Your task to perform on an android device: Add "lg ultragear" to the cart on newegg Image 0: 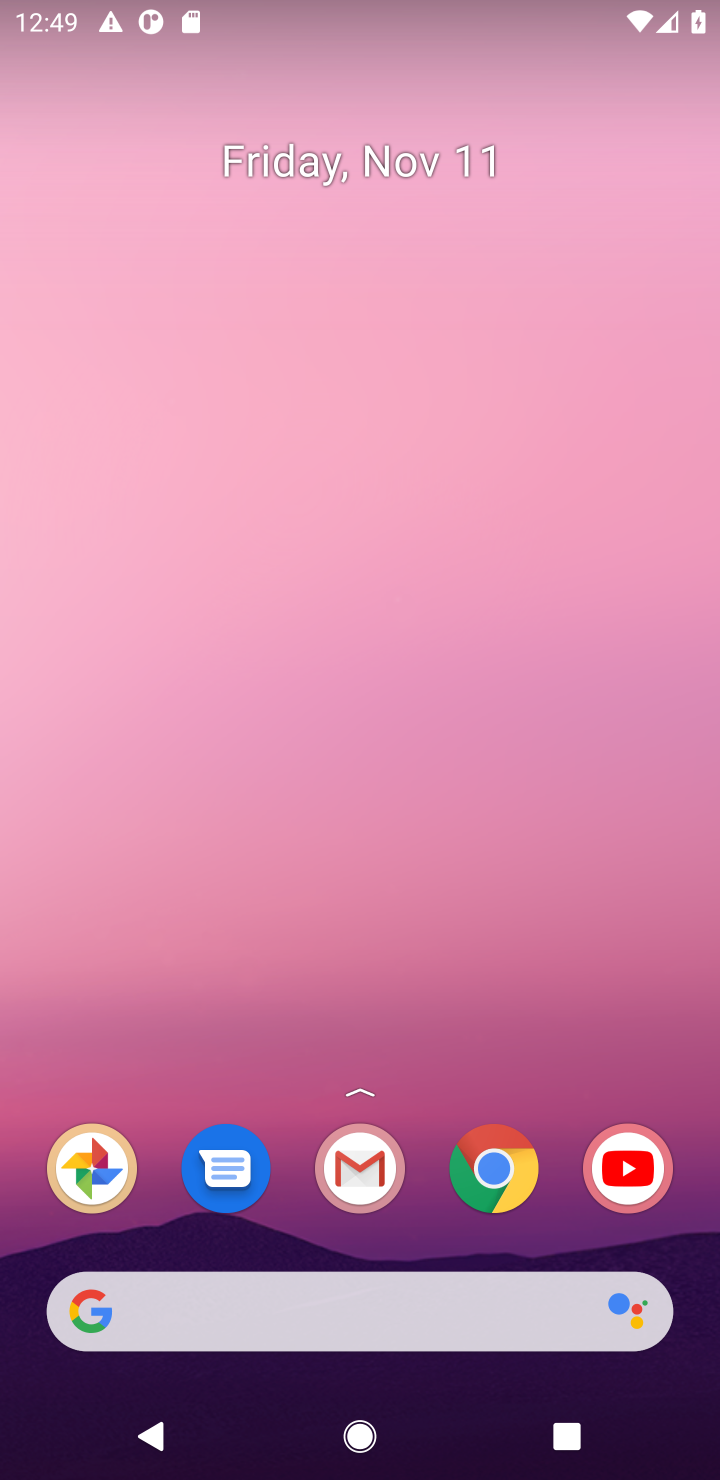
Step 0: click (500, 1166)
Your task to perform on an android device: Add "lg ultragear" to the cart on newegg Image 1: 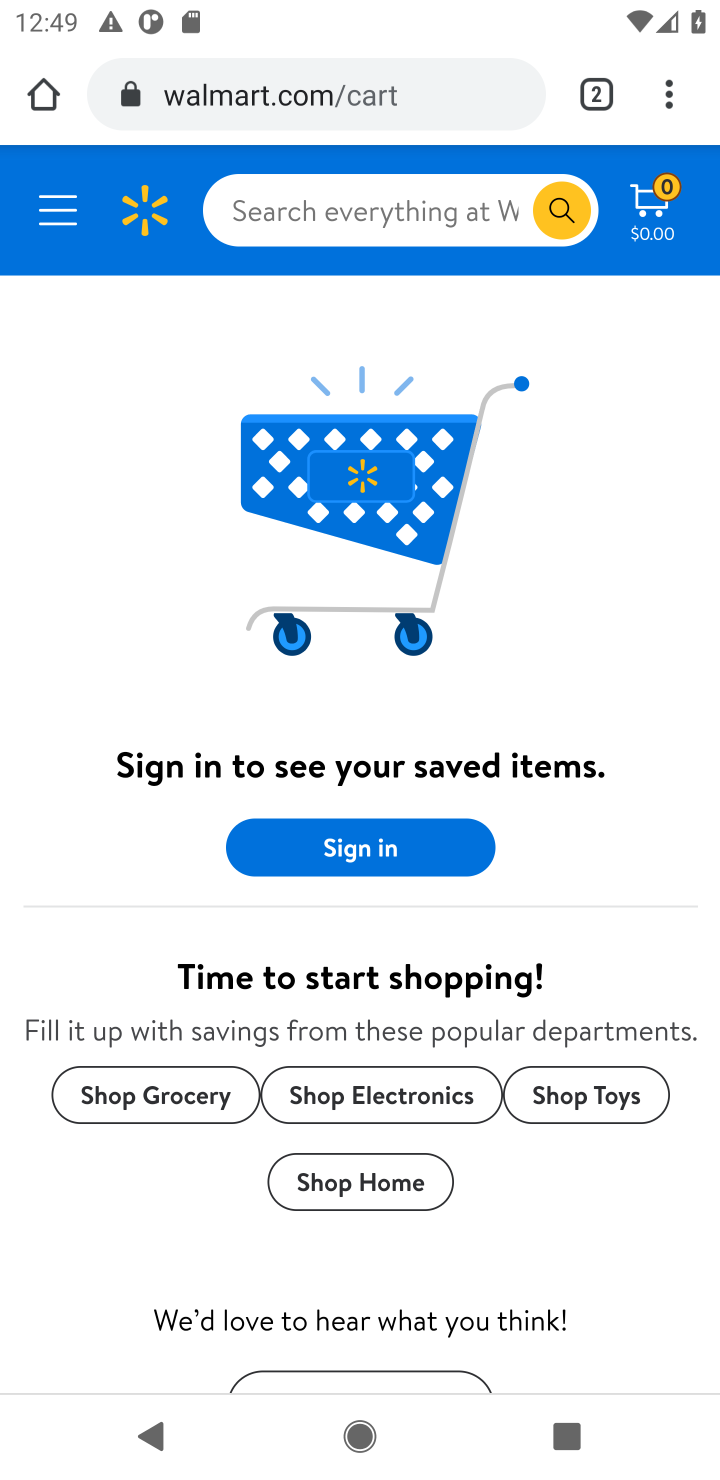
Step 1: click (308, 100)
Your task to perform on an android device: Add "lg ultragear" to the cart on newegg Image 2: 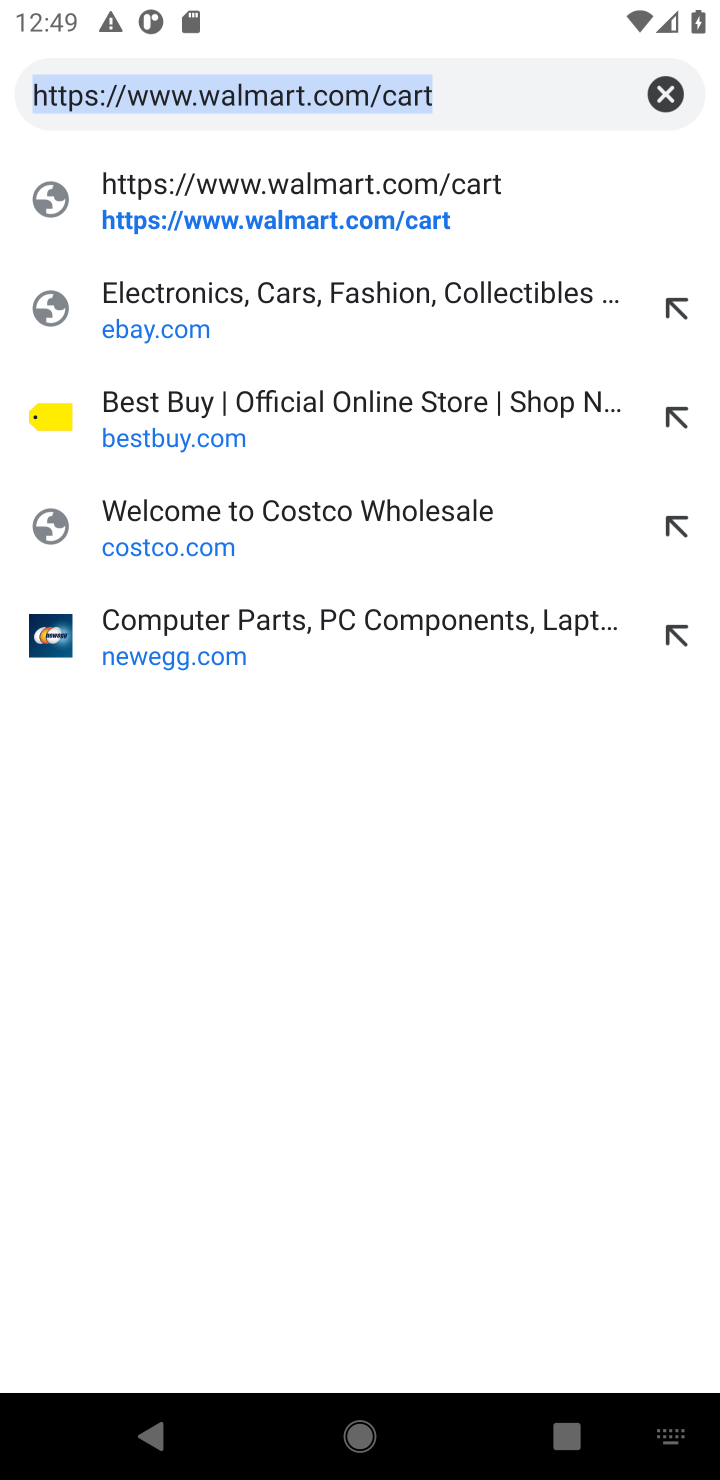
Step 2: click (166, 647)
Your task to perform on an android device: Add "lg ultragear" to the cart on newegg Image 3: 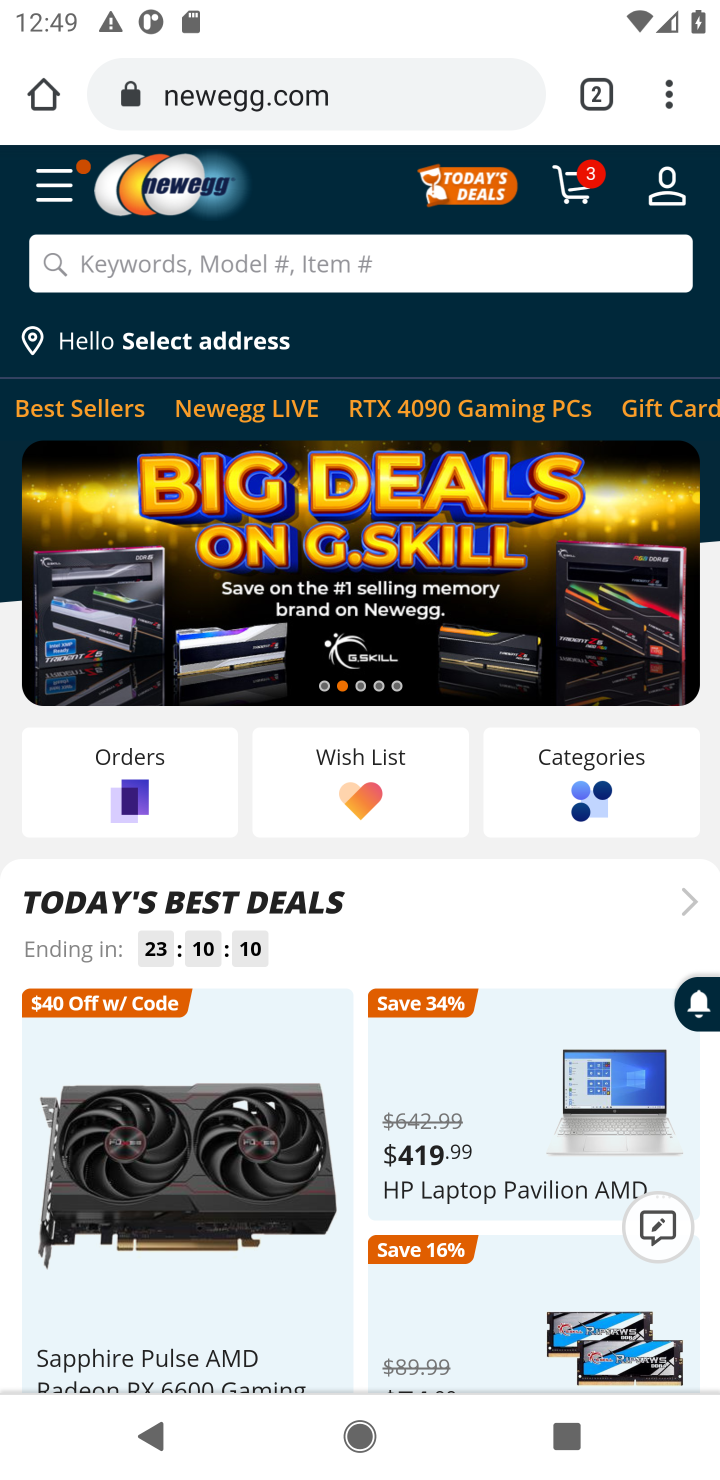
Step 3: click (244, 263)
Your task to perform on an android device: Add "lg ultragear" to the cart on newegg Image 4: 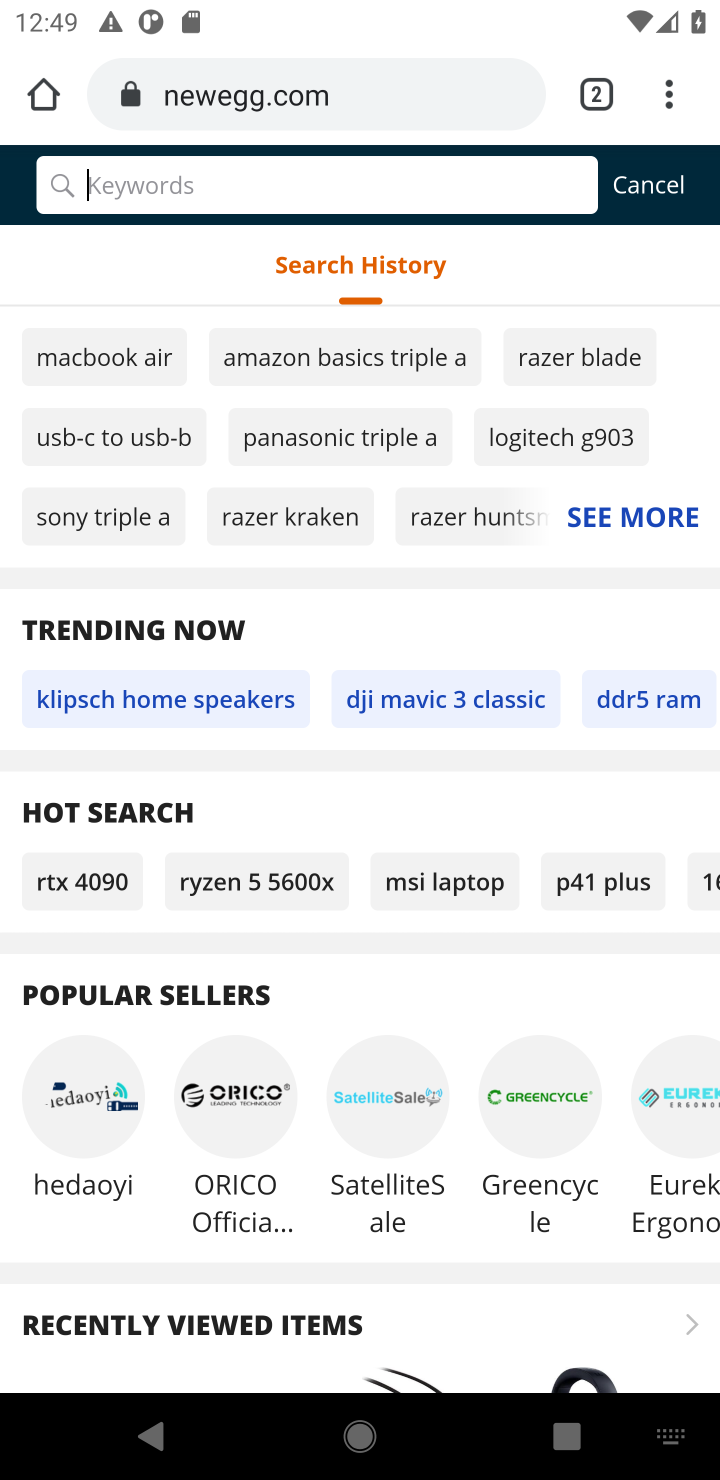
Step 4: type "lg ultragear"
Your task to perform on an android device: Add "lg ultragear" to the cart on newegg Image 5: 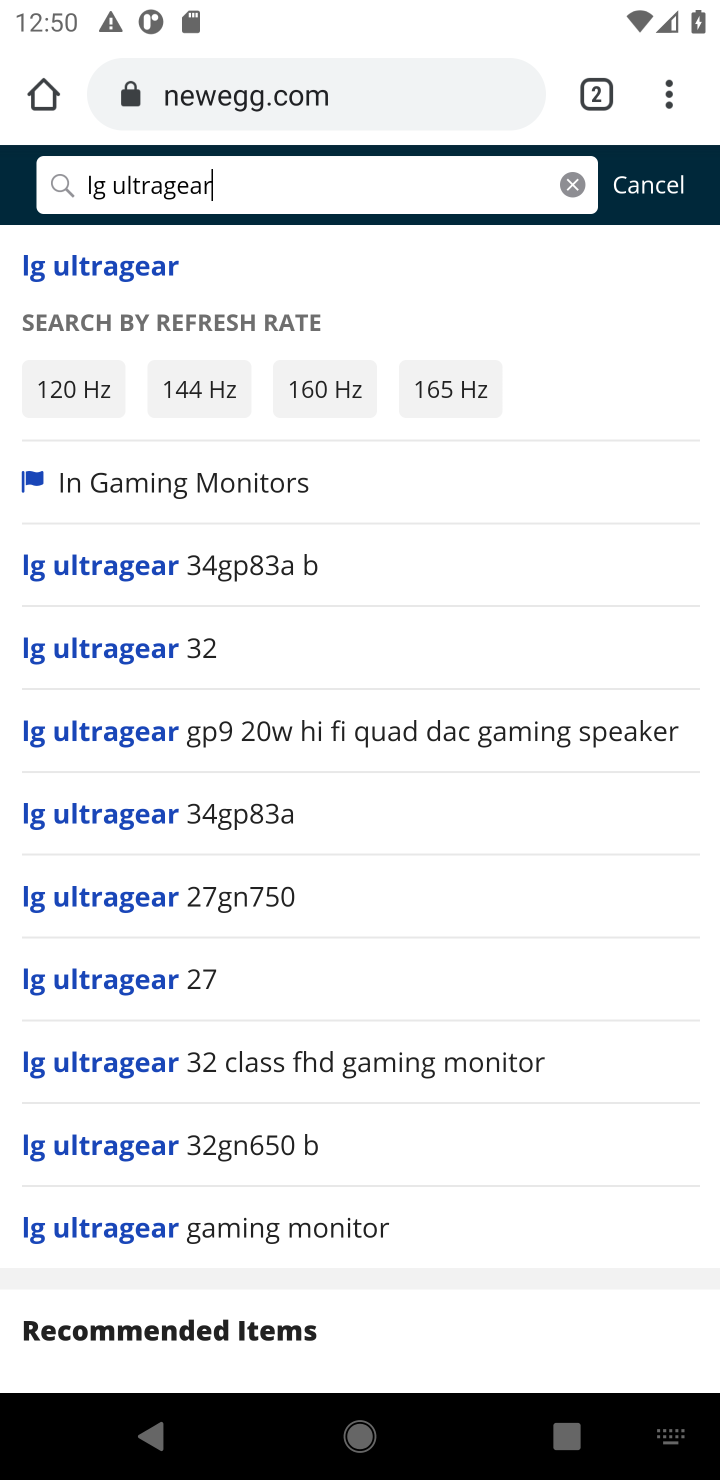
Step 5: click (120, 278)
Your task to perform on an android device: Add "lg ultragear" to the cart on newegg Image 6: 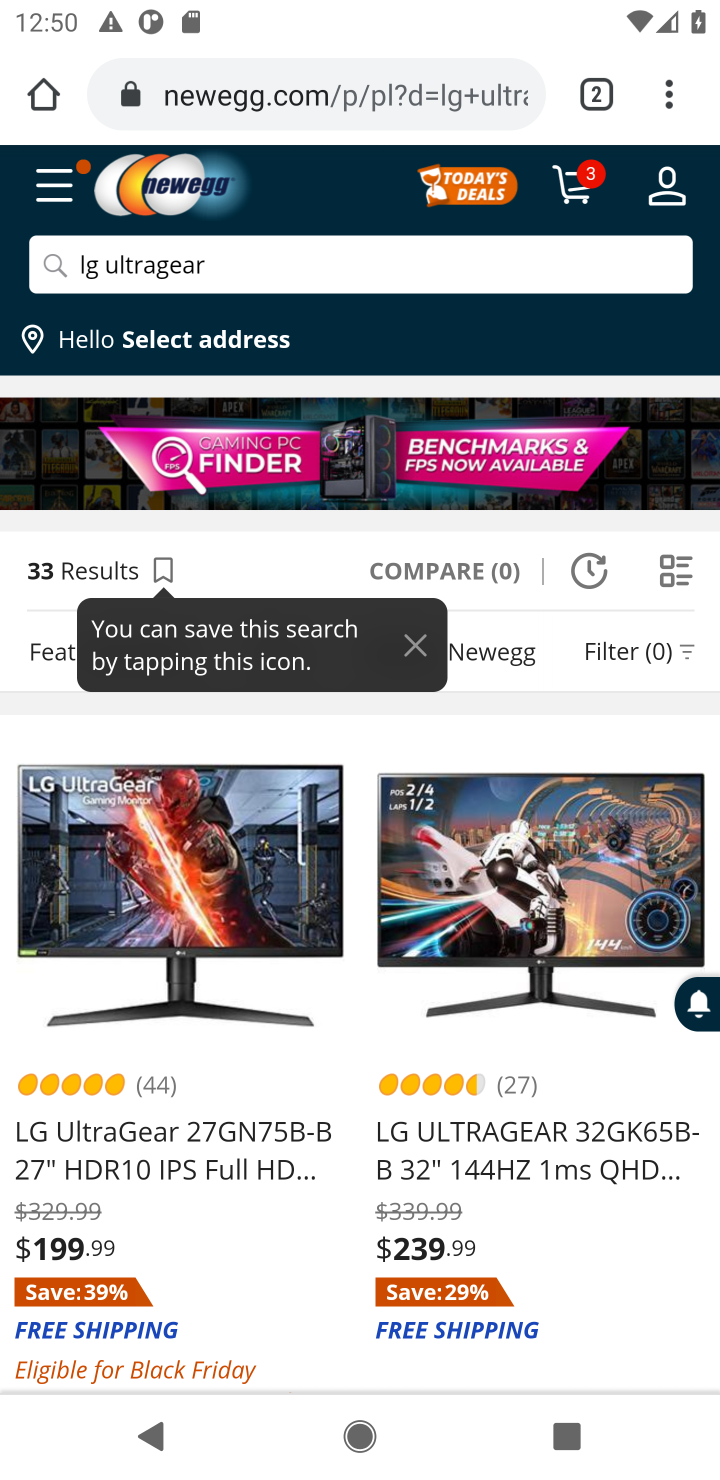
Step 6: click (155, 1044)
Your task to perform on an android device: Add "lg ultragear" to the cart on newegg Image 7: 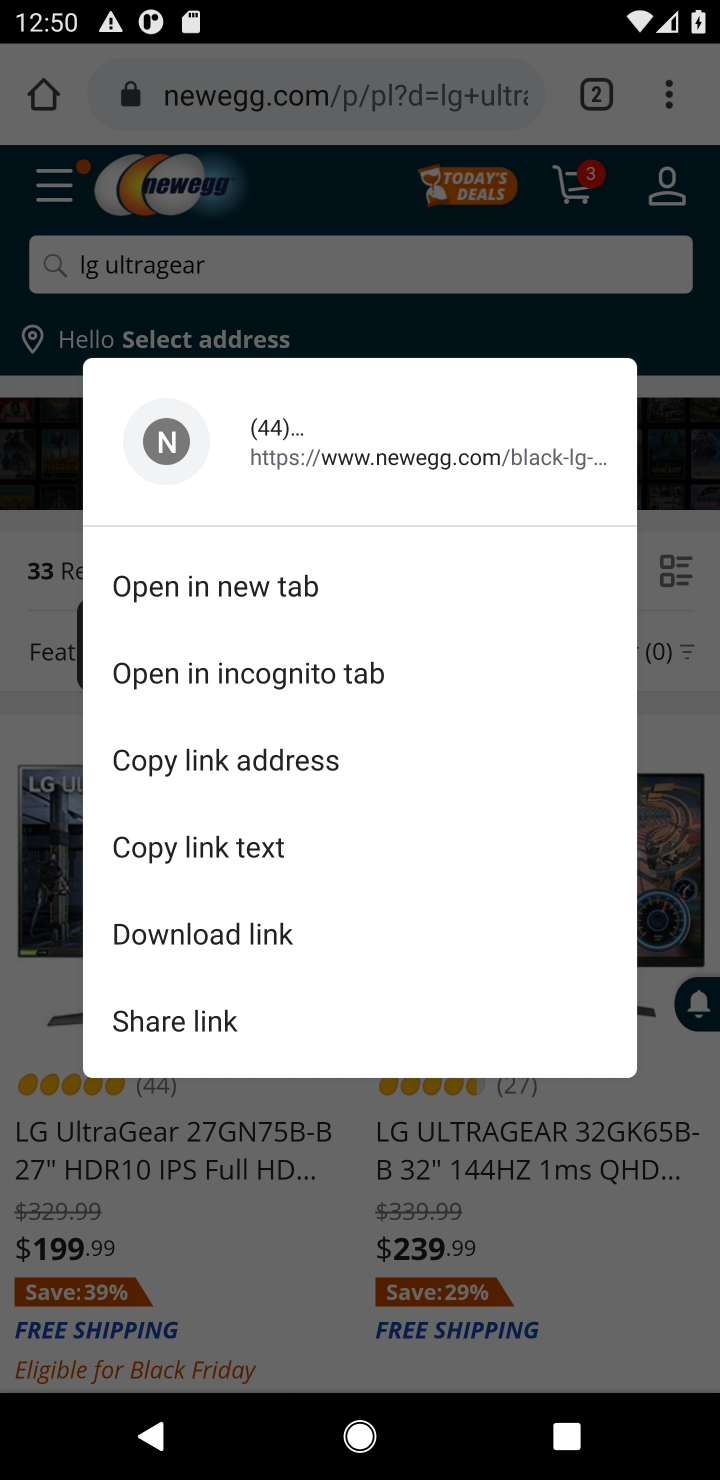
Step 7: click (49, 1101)
Your task to perform on an android device: Add "lg ultragear" to the cart on newegg Image 8: 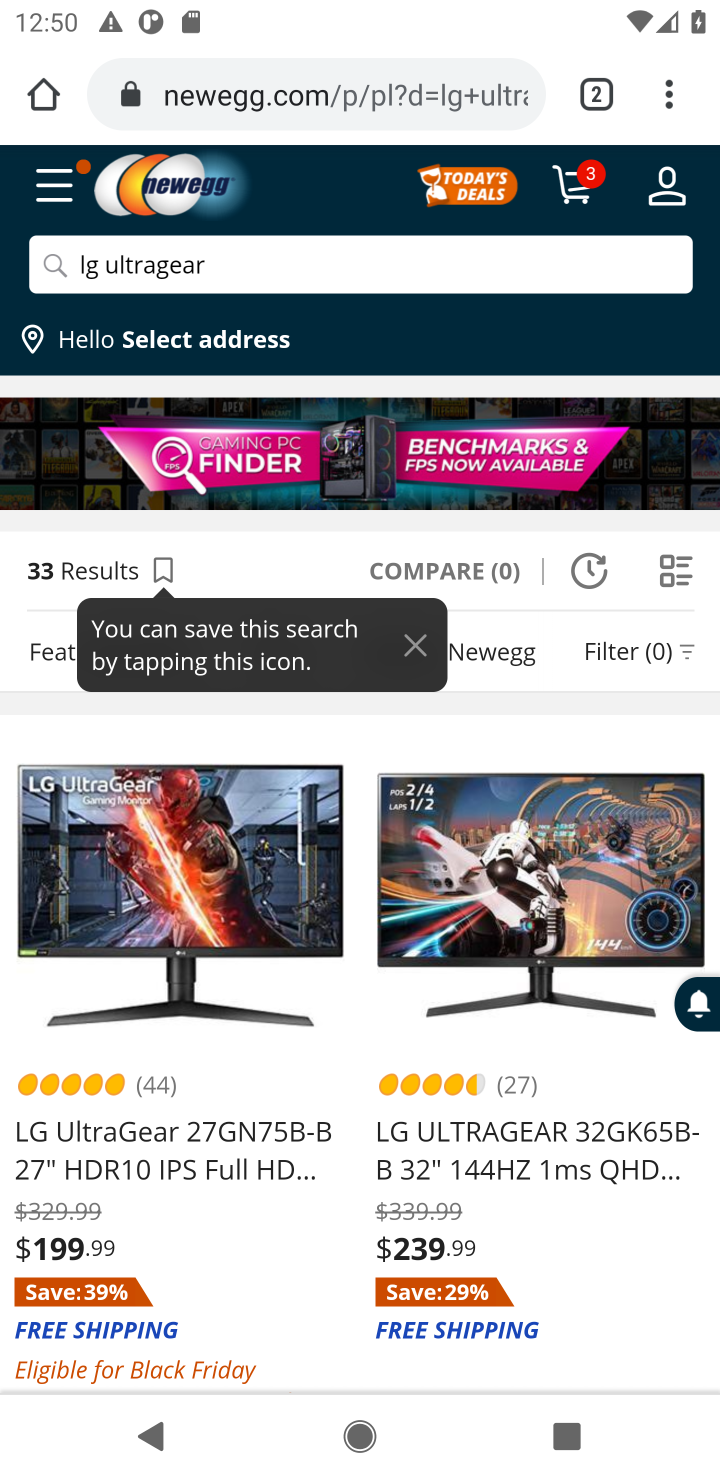
Step 8: click (73, 938)
Your task to perform on an android device: Add "lg ultragear" to the cart on newegg Image 9: 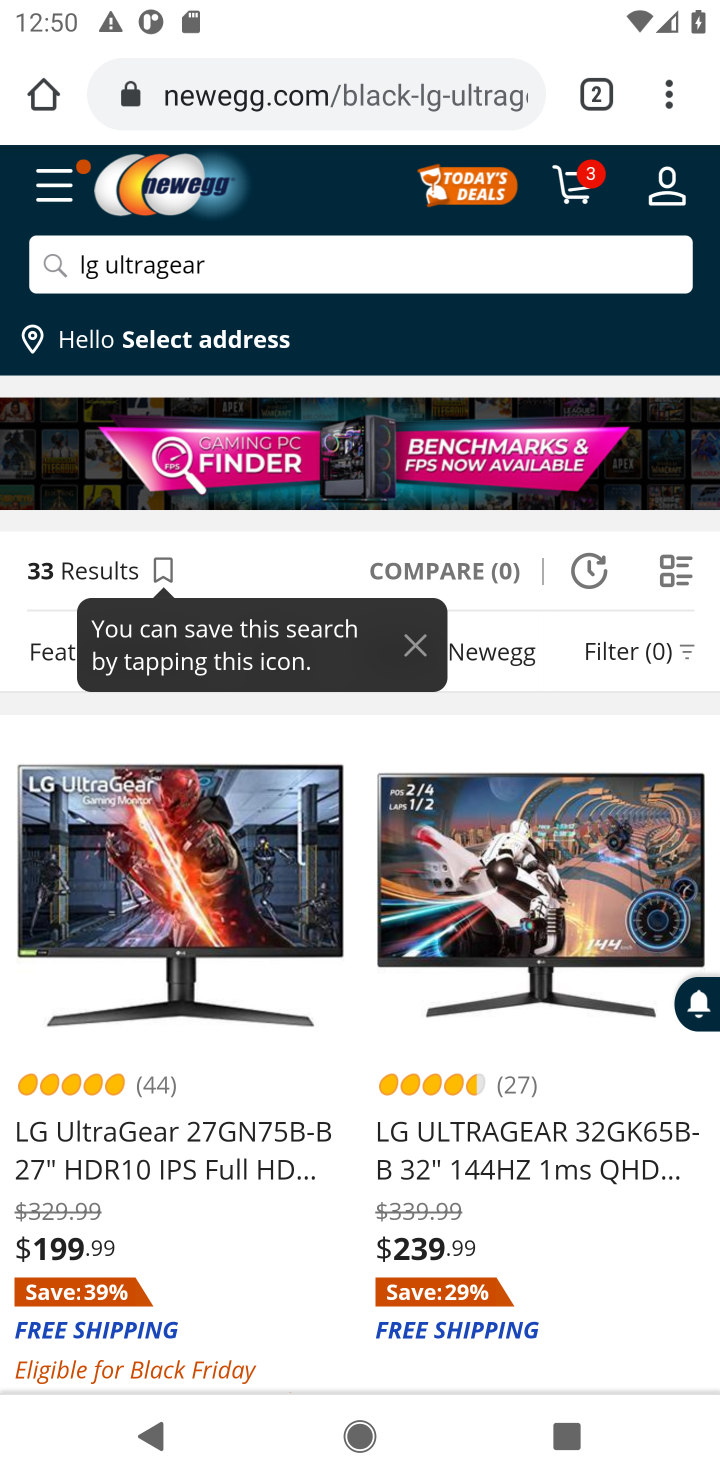
Step 9: click (227, 1047)
Your task to perform on an android device: Add "lg ultragear" to the cart on newegg Image 10: 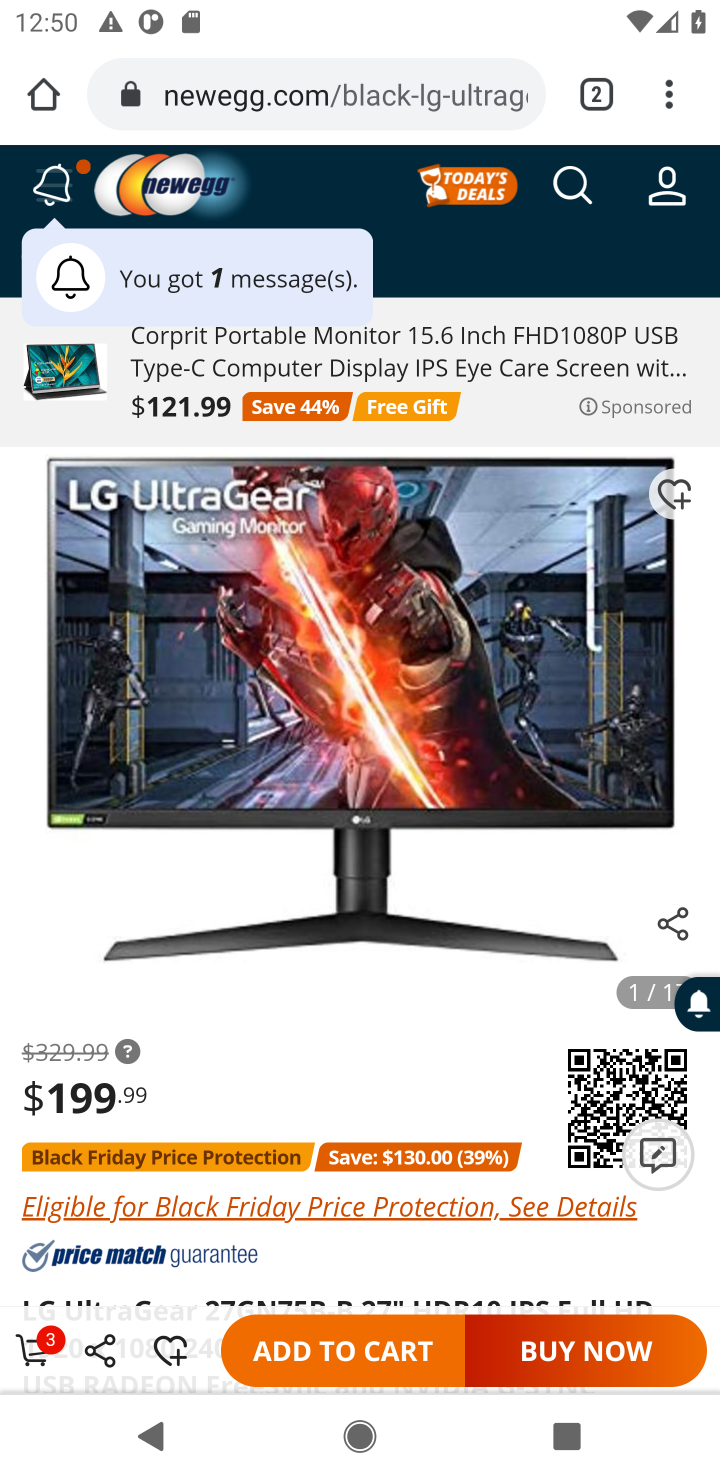
Step 10: click (318, 1345)
Your task to perform on an android device: Add "lg ultragear" to the cart on newegg Image 11: 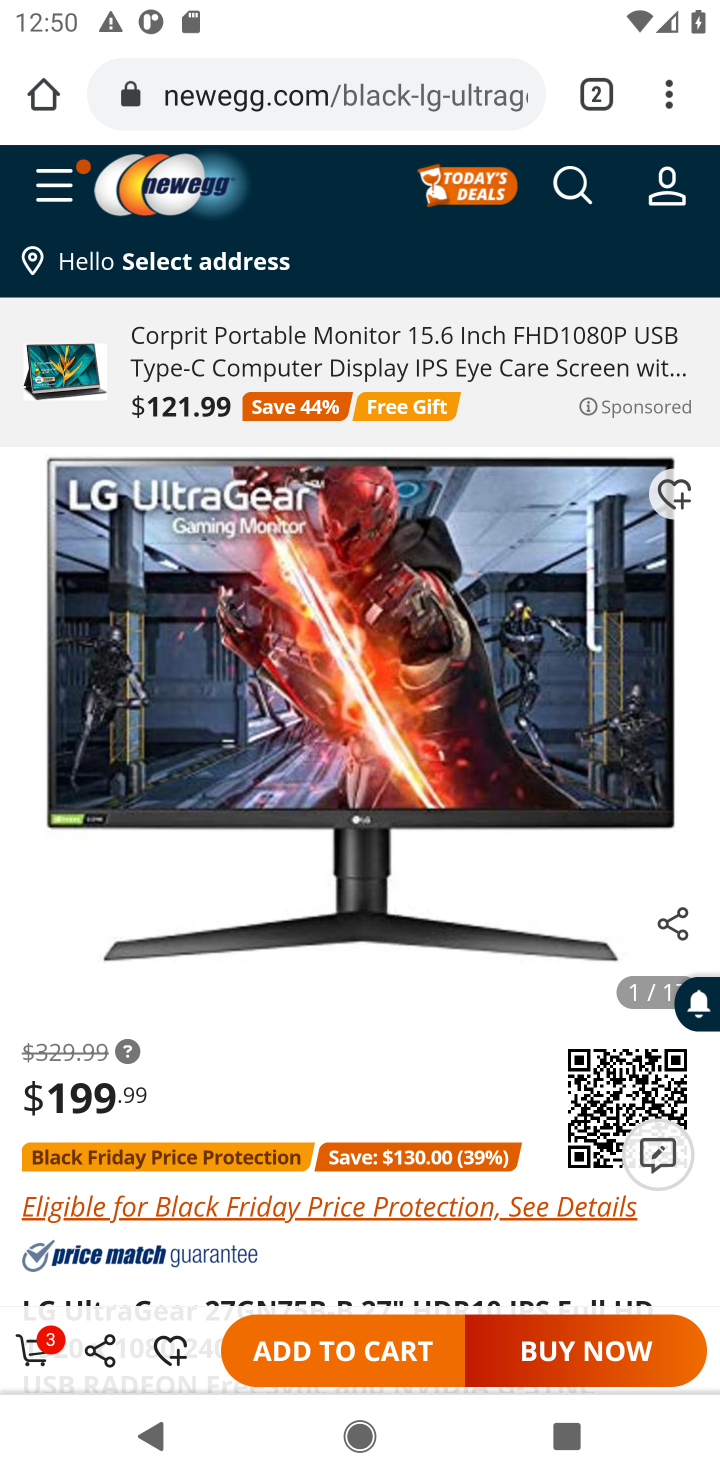
Step 11: drag from (335, 1017) to (335, 584)
Your task to perform on an android device: Add "lg ultragear" to the cart on newegg Image 12: 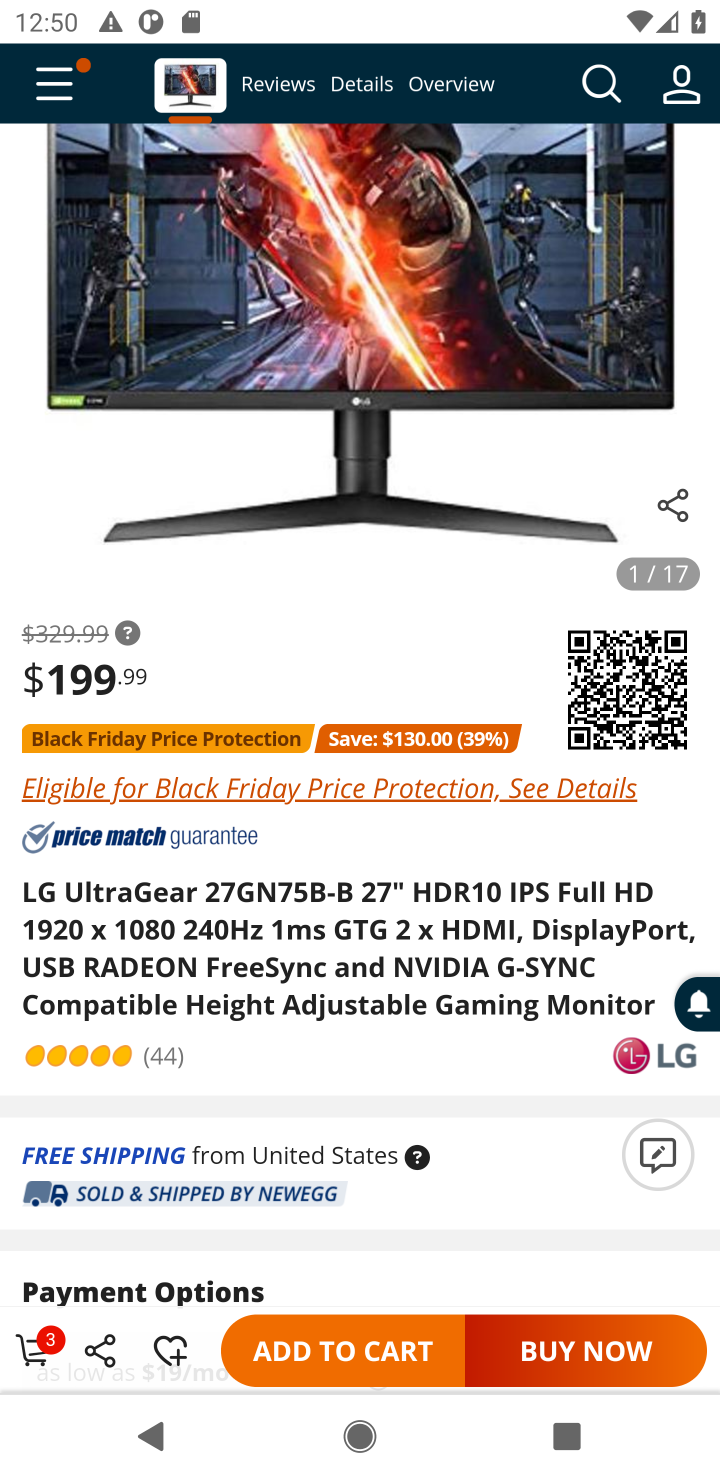
Step 12: click (378, 1347)
Your task to perform on an android device: Add "lg ultragear" to the cart on newegg Image 13: 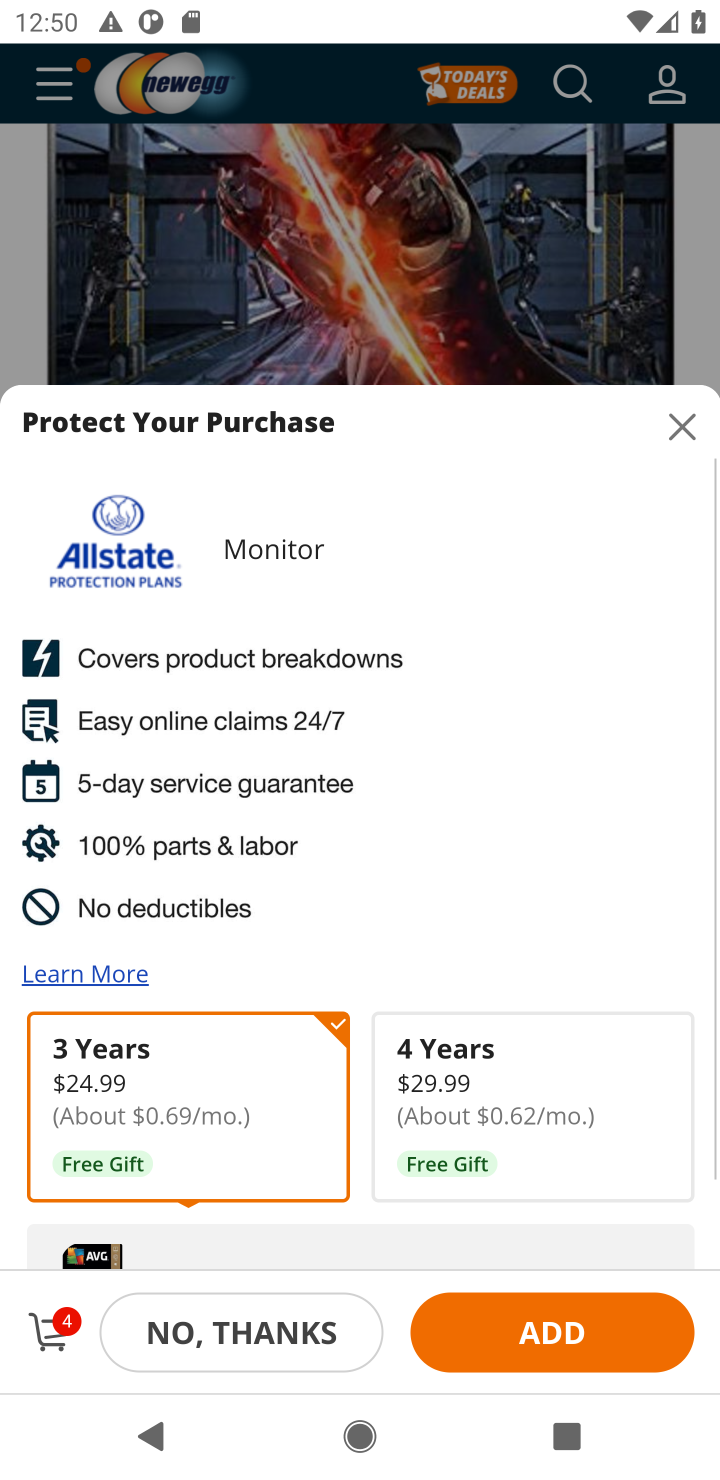
Step 13: task complete